Your task to perform on an android device: Do I have any events tomorrow? Image 0: 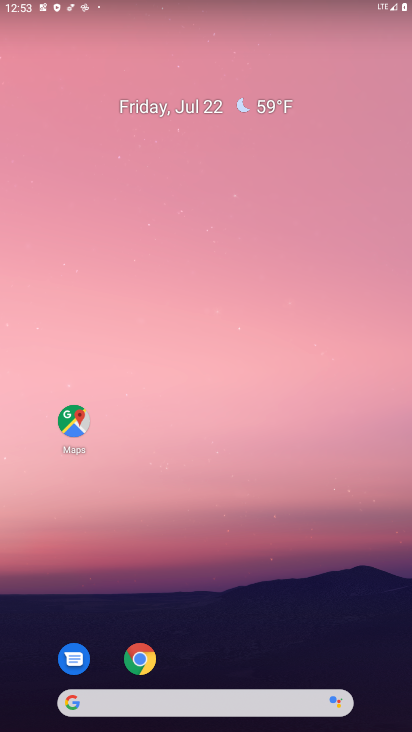
Step 0: drag from (262, 603) to (309, 2)
Your task to perform on an android device: Do I have any events tomorrow? Image 1: 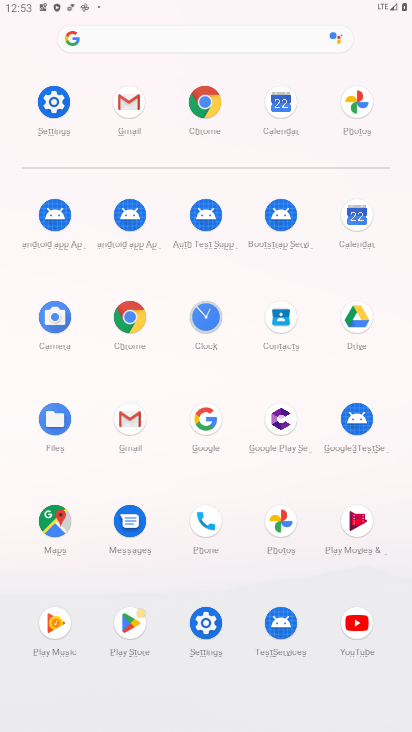
Step 1: click (351, 203)
Your task to perform on an android device: Do I have any events tomorrow? Image 2: 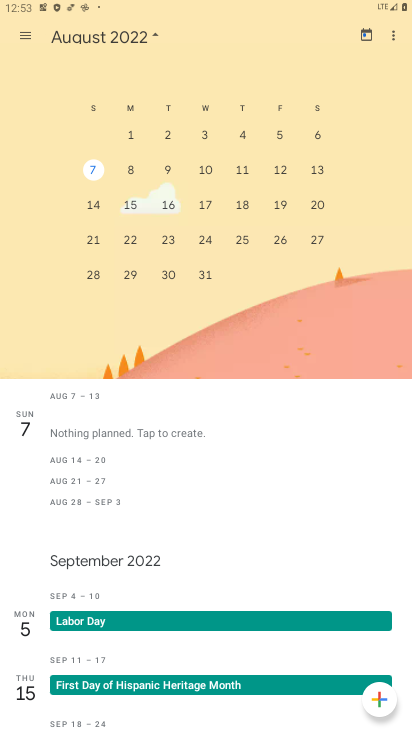
Step 2: click (133, 171)
Your task to perform on an android device: Do I have any events tomorrow? Image 3: 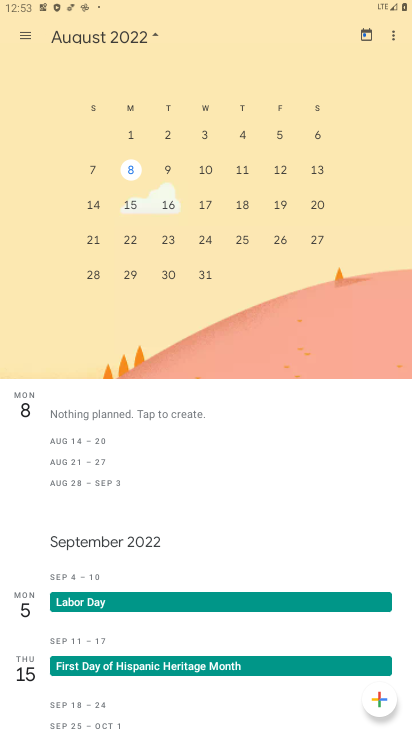
Step 3: task complete